Your task to perform on an android device: Open Google Image 0: 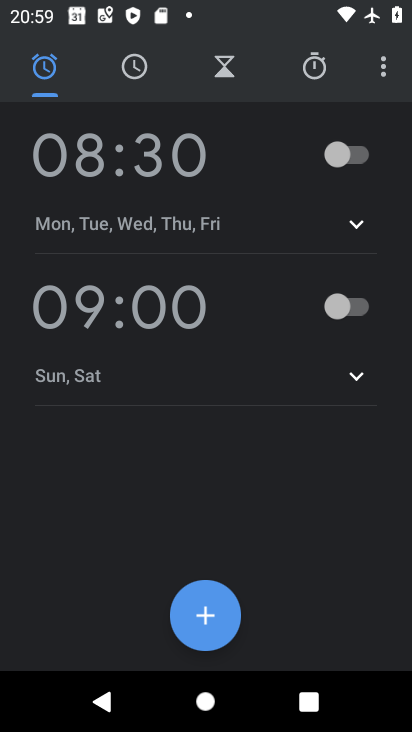
Step 0: press home button
Your task to perform on an android device: Open Google Image 1: 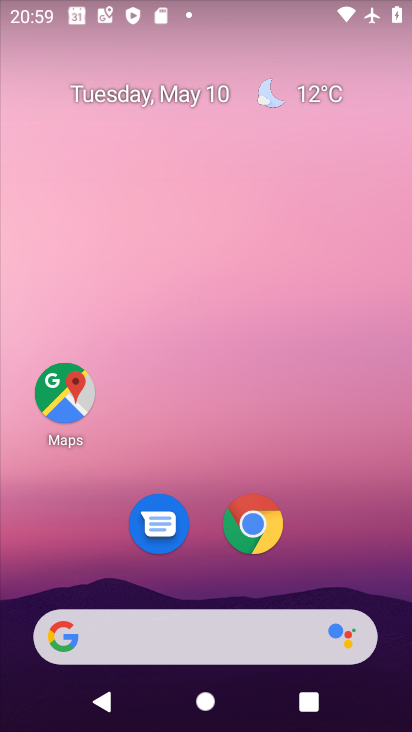
Step 1: click (185, 645)
Your task to perform on an android device: Open Google Image 2: 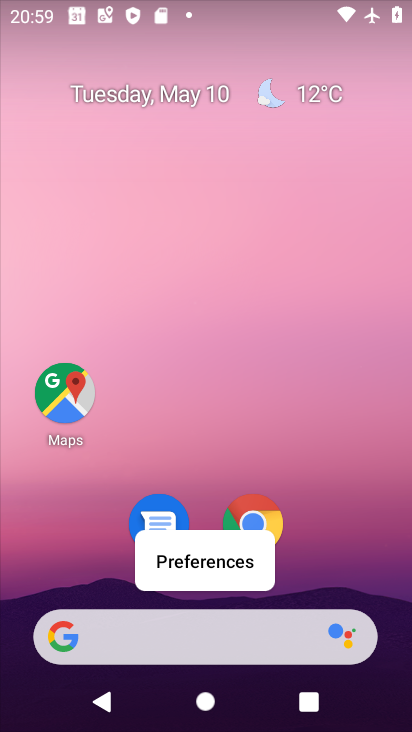
Step 2: click (142, 637)
Your task to perform on an android device: Open Google Image 3: 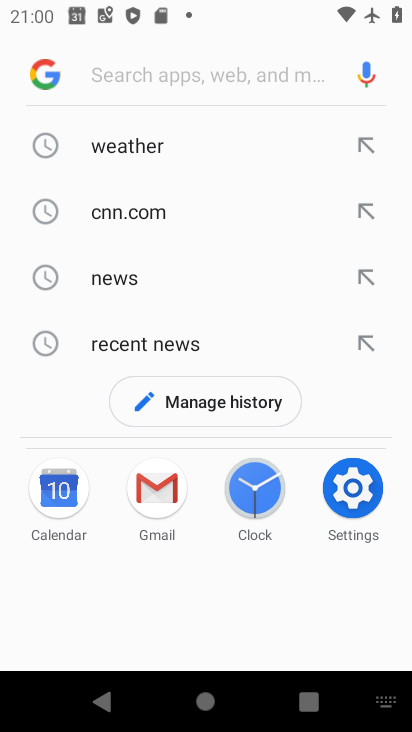
Step 3: click (45, 73)
Your task to perform on an android device: Open Google Image 4: 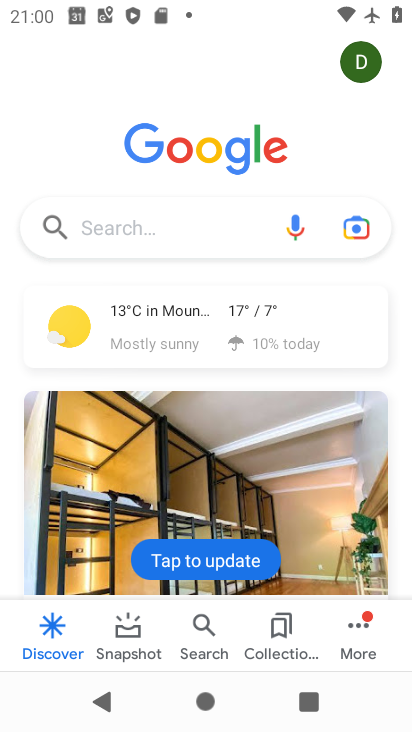
Step 4: task complete